Your task to perform on an android device: Open the stopwatch Image 0: 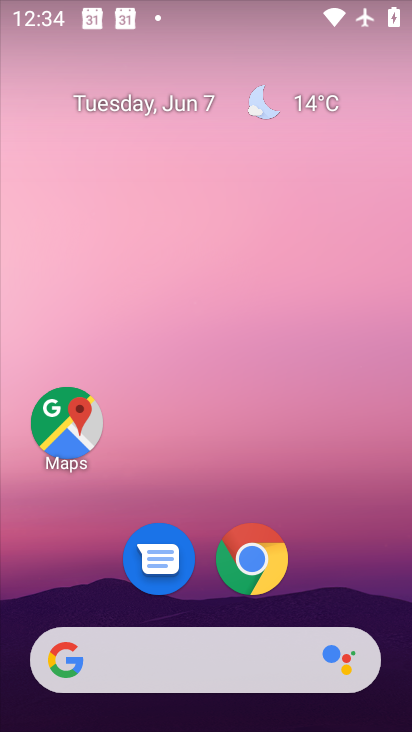
Step 0: drag from (387, 612) to (365, 121)
Your task to perform on an android device: Open the stopwatch Image 1: 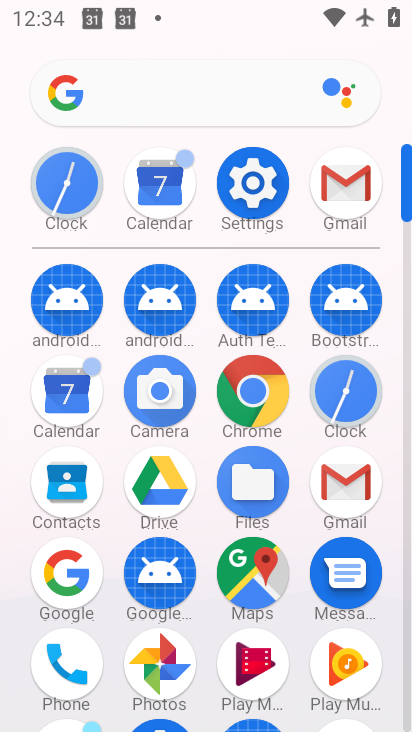
Step 1: click (347, 396)
Your task to perform on an android device: Open the stopwatch Image 2: 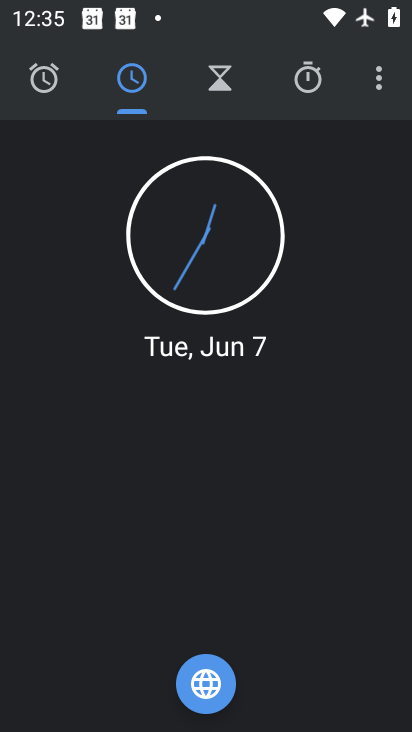
Step 2: click (307, 78)
Your task to perform on an android device: Open the stopwatch Image 3: 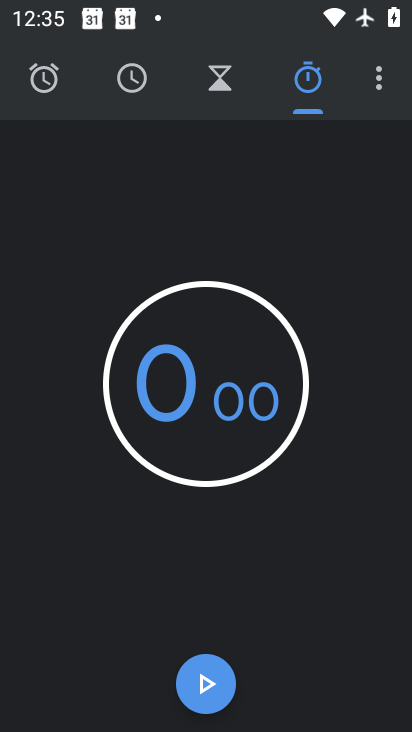
Step 3: task complete